Your task to perform on an android device: set the stopwatch Image 0: 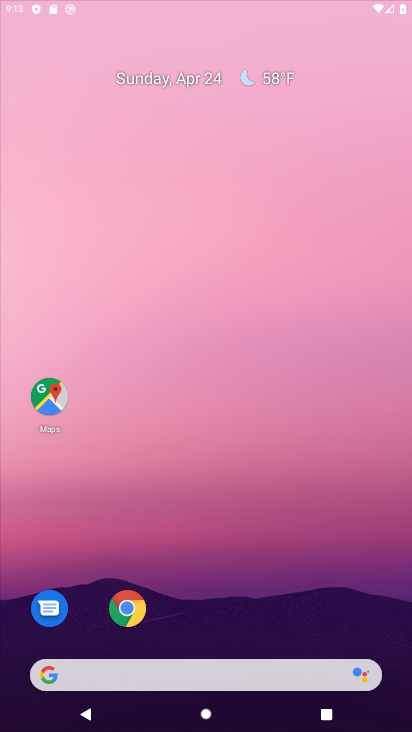
Step 0: click (320, 149)
Your task to perform on an android device: set the stopwatch Image 1: 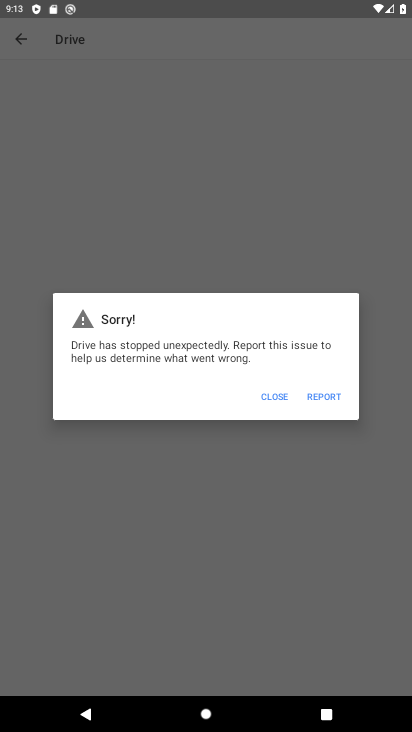
Step 1: press home button
Your task to perform on an android device: set the stopwatch Image 2: 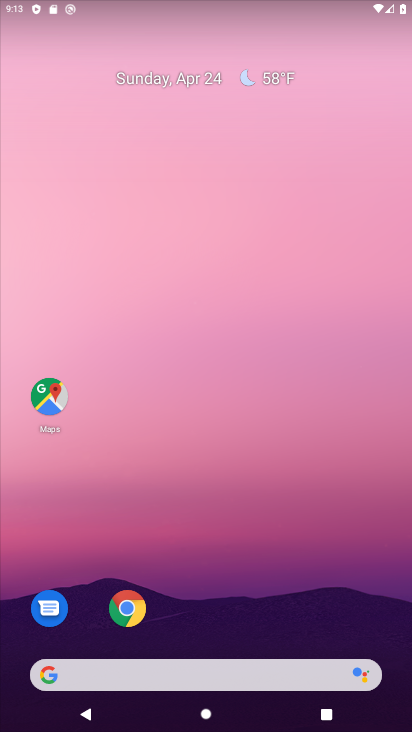
Step 2: drag from (351, 615) to (329, 107)
Your task to perform on an android device: set the stopwatch Image 3: 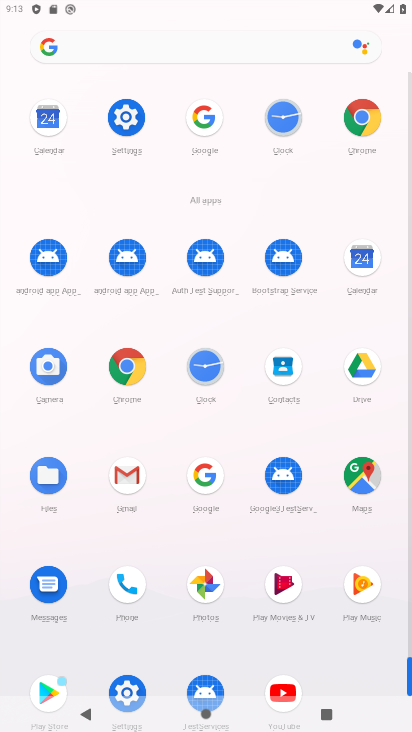
Step 3: click (206, 374)
Your task to perform on an android device: set the stopwatch Image 4: 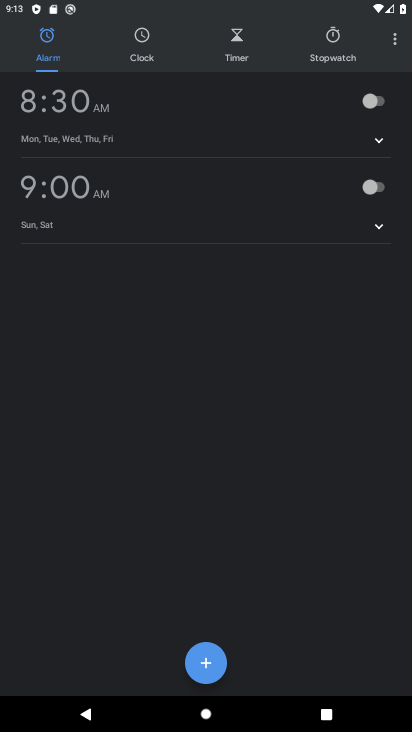
Step 4: click (331, 40)
Your task to perform on an android device: set the stopwatch Image 5: 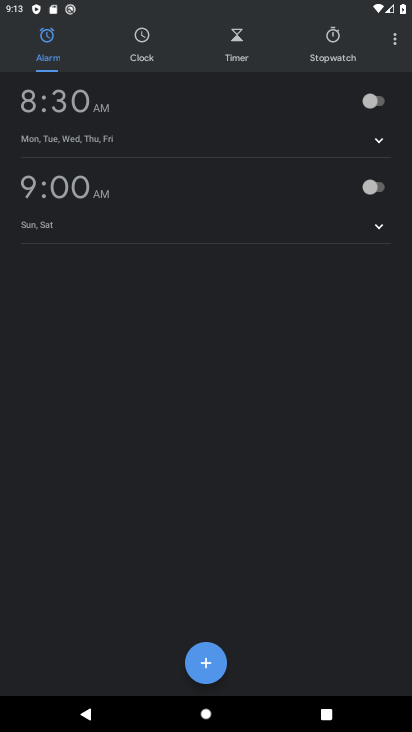
Step 5: click (327, 42)
Your task to perform on an android device: set the stopwatch Image 6: 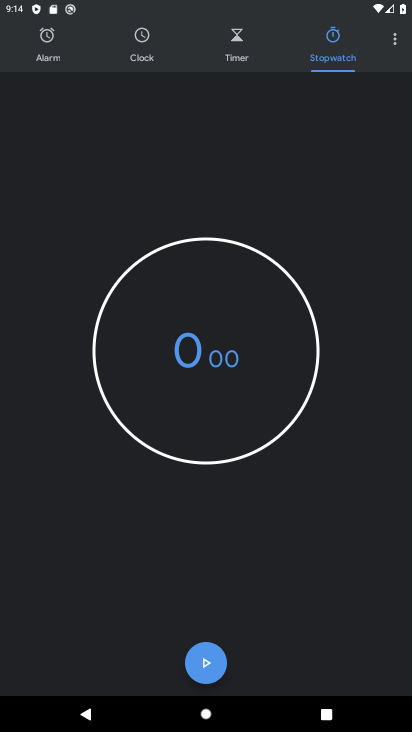
Step 6: click (209, 671)
Your task to perform on an android device: set the stopwatch Image 7: 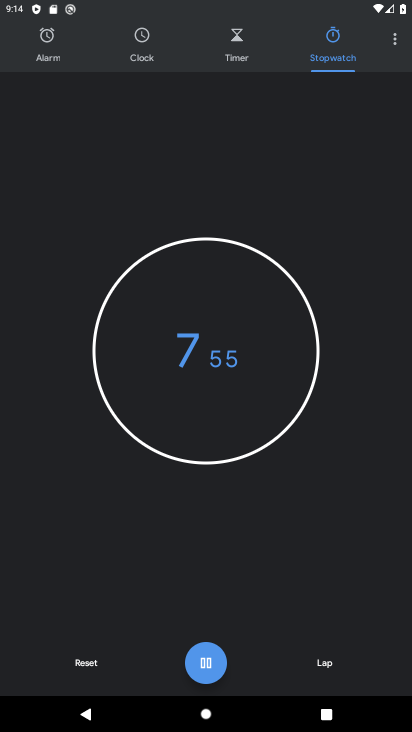
Step 7: task complete